Your task to perform on an android device: toggle data saver in the chrome app Image 0: 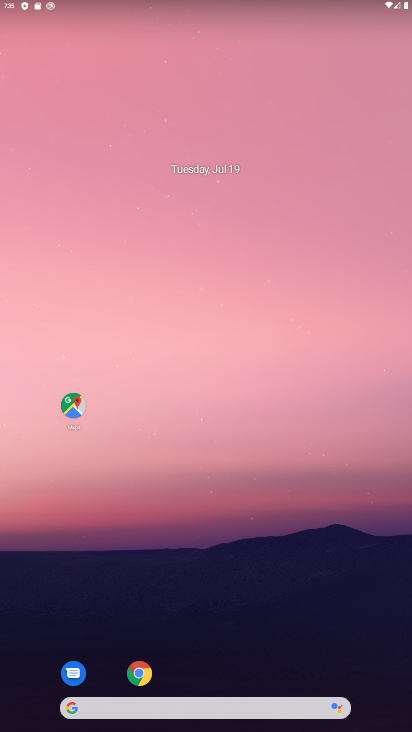
Step 0: click (140, 672)
Your task to perform on an android device: toggle data saver in the chrome app Image 1: 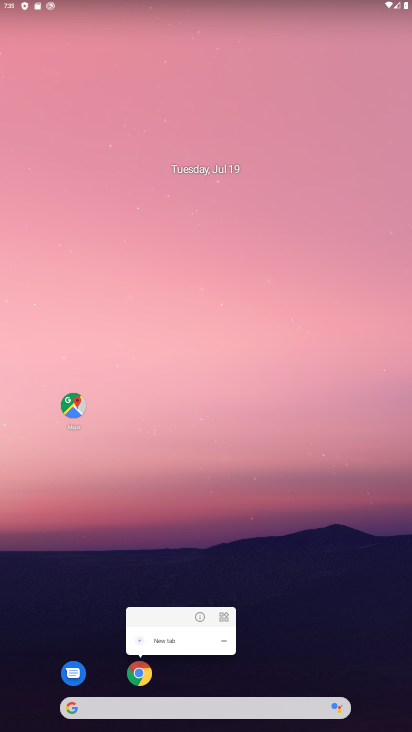
Step 1: click (140, 672)
Your task to perform on an android device: toggle data saver in the chrome app Image 2: 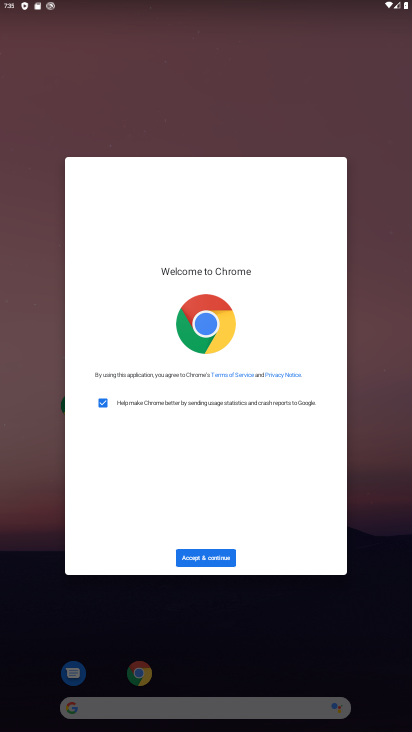
Step 2: click (205, 559)
Your task to perform on an android device: toggle data saver in the chrome app Image 3: 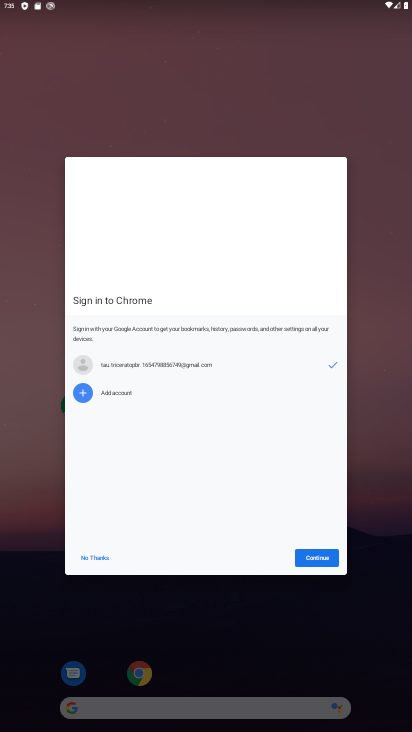
Step 3: click (316, 557)
Your task to perform on an android device: toggle data saver in the chrome app Image 4: 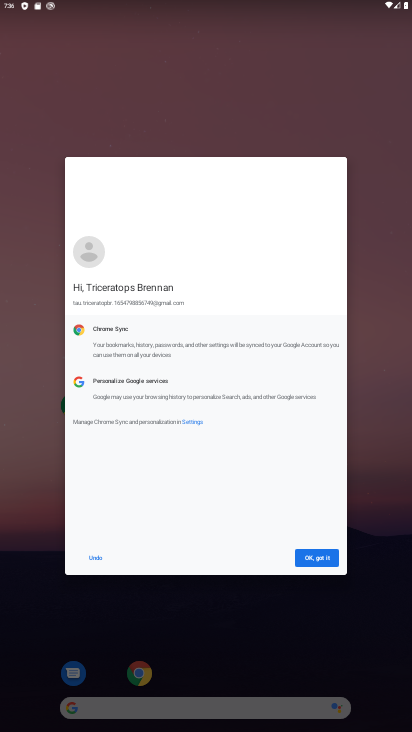
Step 4: click (316, 557)
Your task to perform on an android device: toggle data saver in the chrome app Image 5: 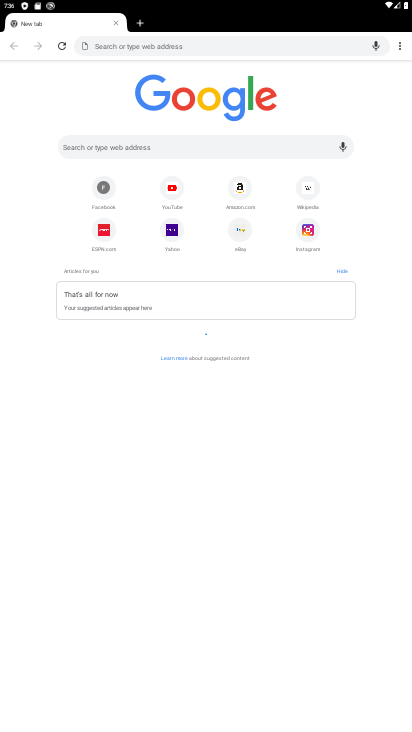
Step 5: click (399, 44)
Your task to perform on an android device: toggle data saver in the chrome app Image 6: 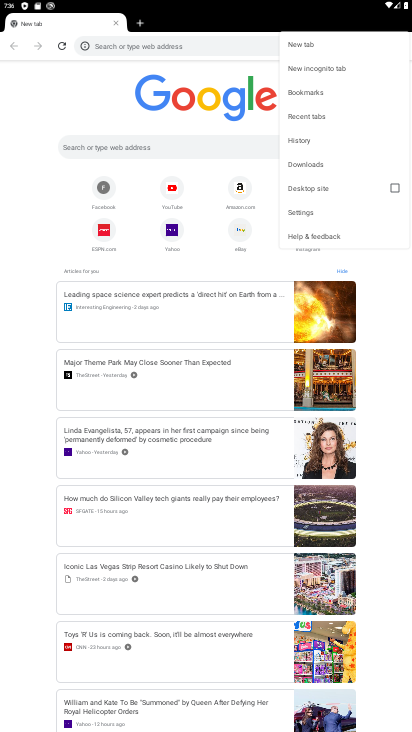
Step 6: click (300, 214)
Your task to perform on an android device: toggle data saver in the chrome app Image 7: 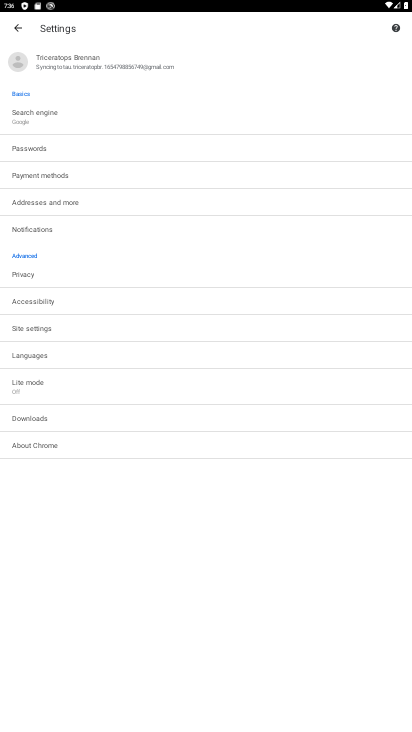
Step 7: click (60, 381)
Your task to perform on an android device: toggle data saver in the chrome app Image 8: 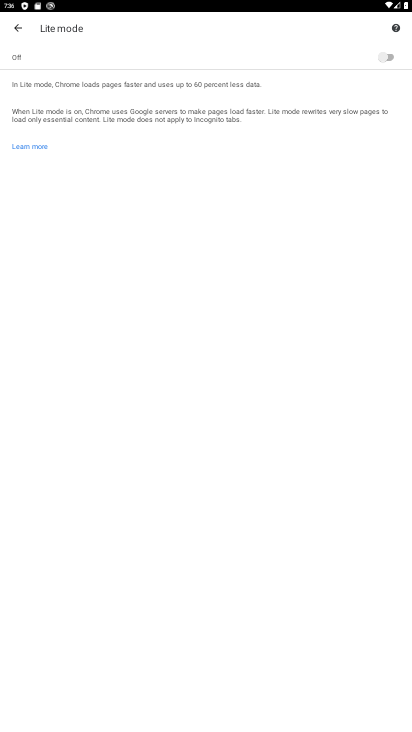
Step 8: click (382, 61)
Your task to perform on an android device: toggle data saver in the chrome app Image 9: 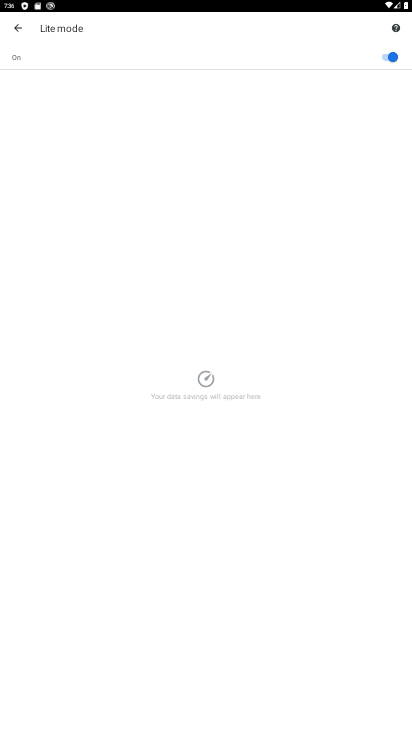
Step 9: task complete